Your task to perform on an android device: turn off notifications in google photos Image 0: 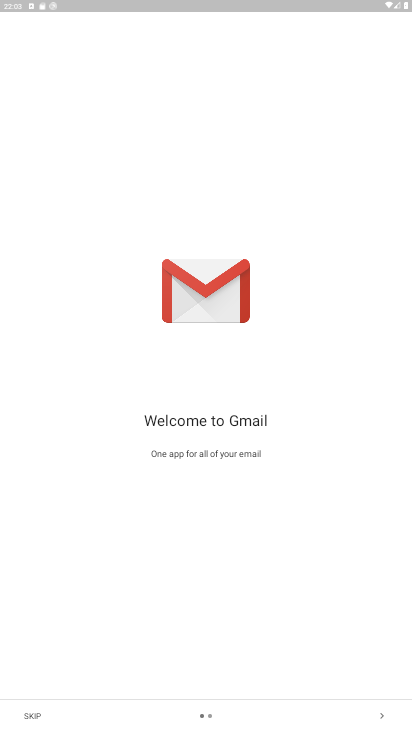
Step 0: type ""
Your task to perform on an android device: turn off notifications in google photos Image 1: 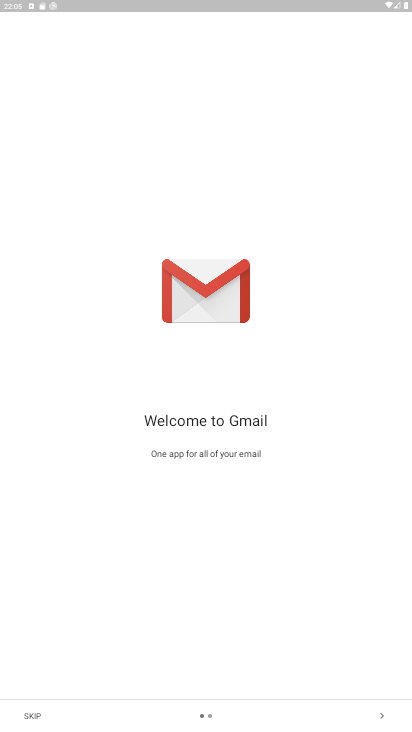
Step 1: task complete